Your task to perform on an android device: refresh tabs in the chrome app Image 0: 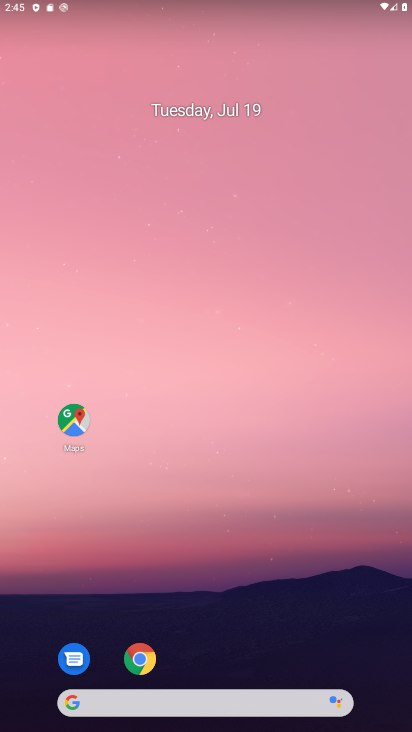
Step 0: click (139, 664)
Your task to perform on an android device: refresh tabs in the chrome app Image 1: 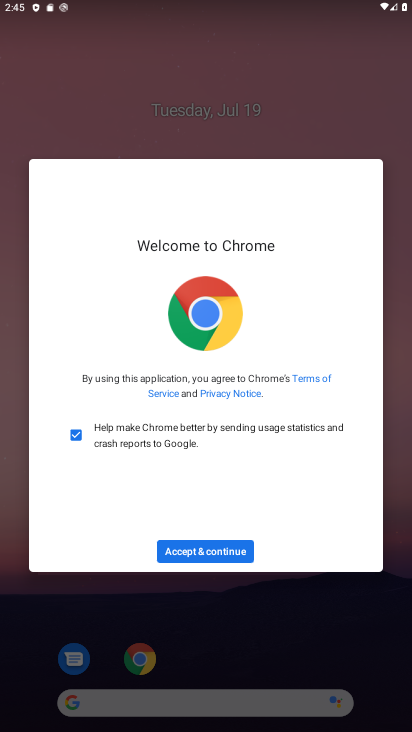
Step 1: click (197, 548)
Your task to perform on an android device: refresh tabs in the chrome app Image 2: 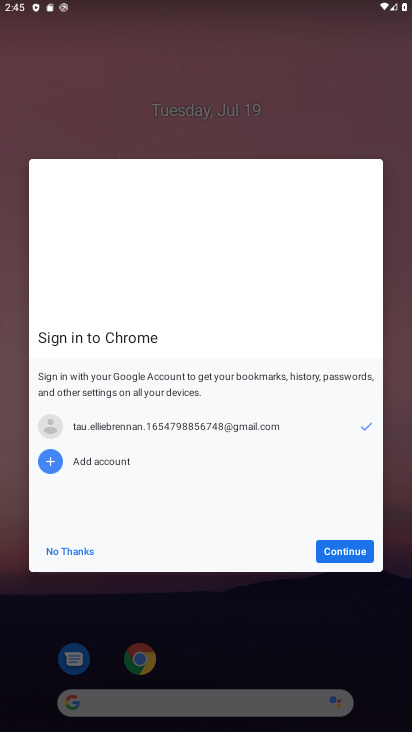
Step 2: click (332, 548)
Your task to perform on an android device: refresh tabs in the chrome app Image 3: 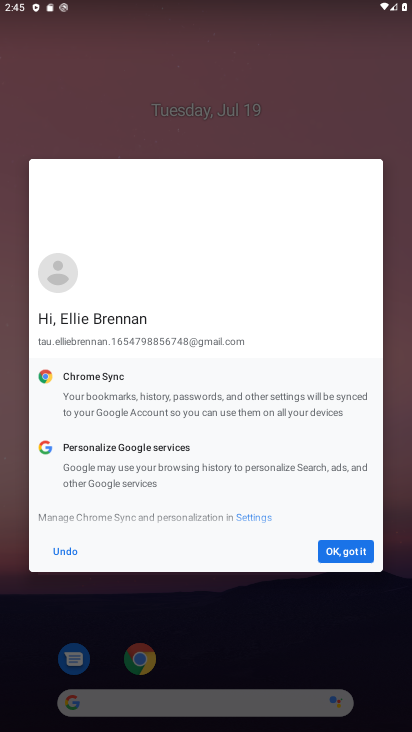
Step 3: click (332, 548)
Your task to perform on an android device: refresh tabs in the chrome app Image 4: 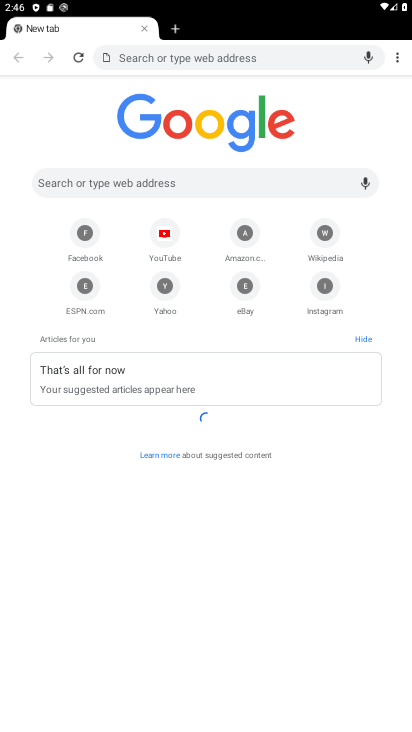
Step 4: click (73, 52)
Your task to perform on an android device: refresh tabs in the chrome app Image 5: 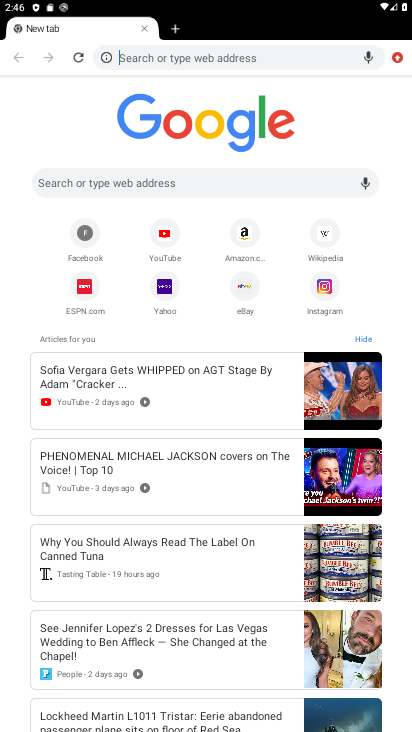
Step 5: task complete